Your task to perform on an android device: visit the assistant section in the google photos Image 0: 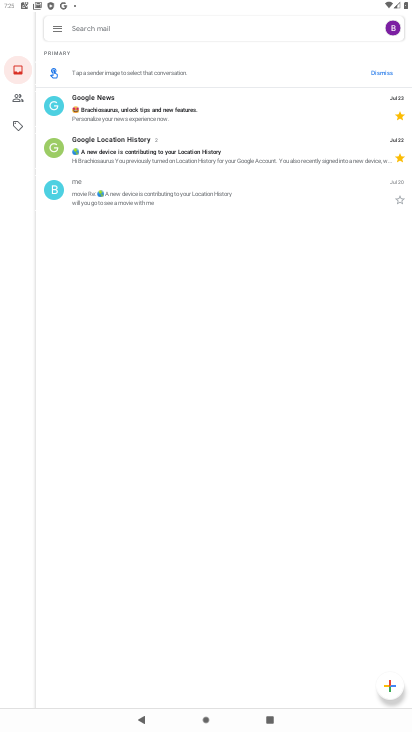
Step 0: press home button
Your task to perform on an android device: visit the assistant section in the google photos Image 1: 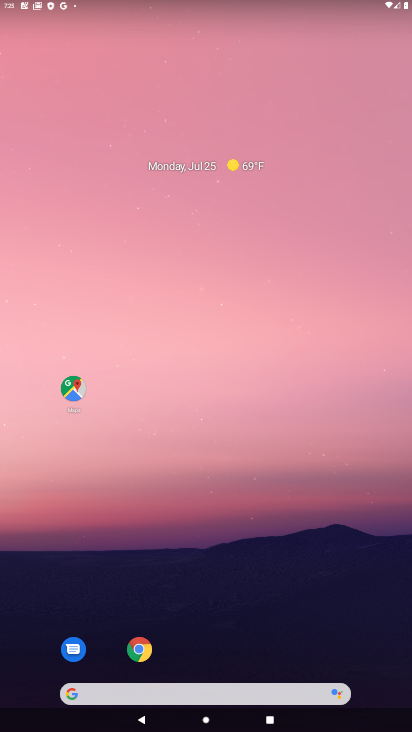
Step 1: drag from (244, 570) to (146, 1)
Your task to perform on an android device: visit the assistant section in the google photos Image 2: 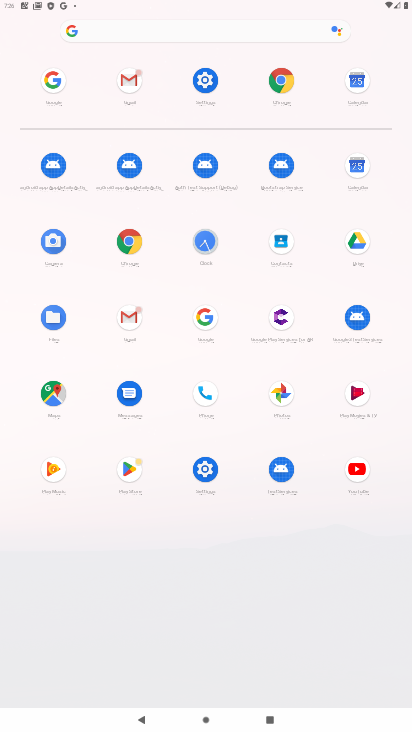
Step 2: click (298, 393)
Your task to perform on an android device: visit the assistant section in the google photos Image 3: 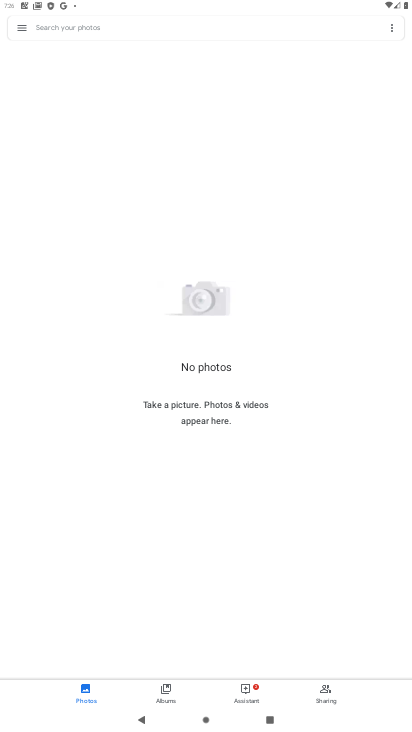
Step 3: click (246, 687)
Your task to perform on an android device: visit the assistant section in the google photos Image 4: 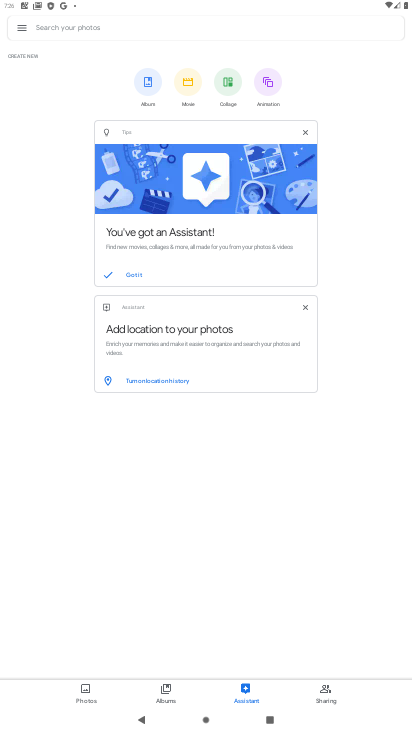
Step 4: task complete